Your task to perform on an android device: turn off priority inbox in the gmail app Image 0: 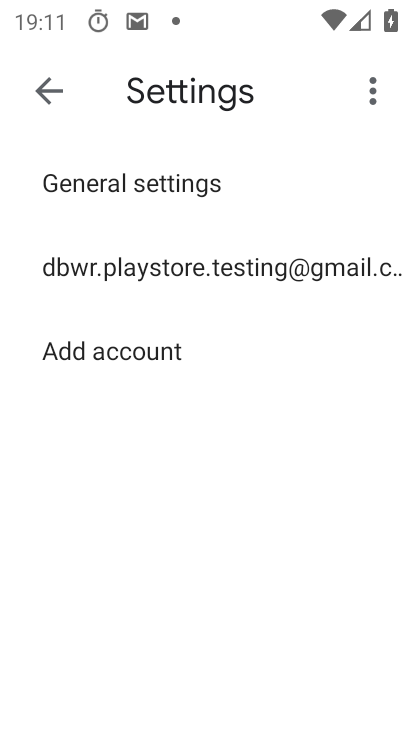
Step 0: press home button
Your task to perform on an android device: turn off priority inbox in the gmail app Image 1: 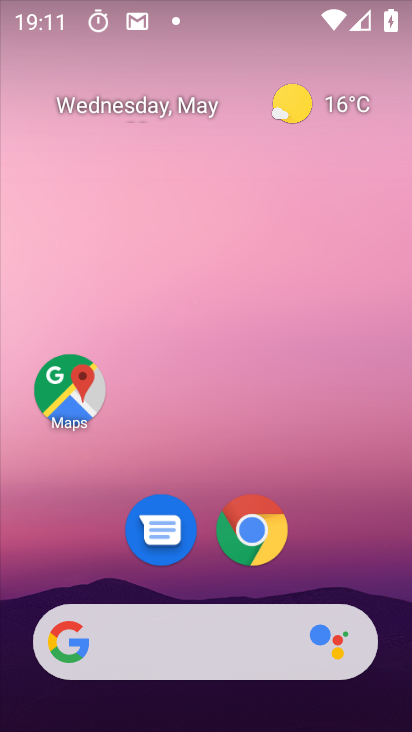
Step 1: drag from (201, 595) to (247, 234)
Your task to perform on an android device: turn off priority inbox in the gmail app Image 2: 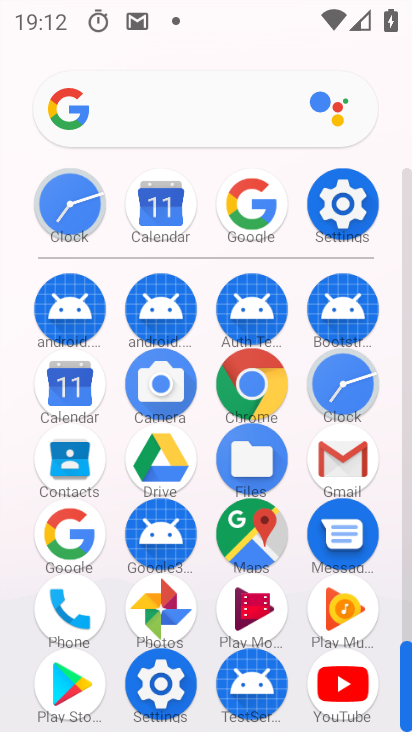
Step 2: click (355, 470)
Your task to perform on an android device: turn off priority inbox in the gmail app Image 3: 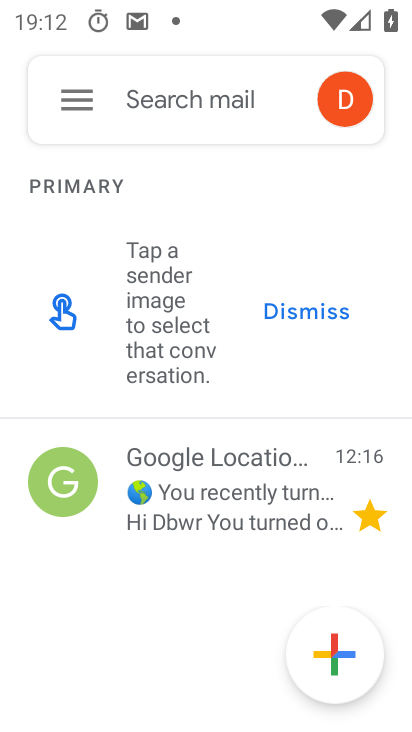
Step 3: click (84, 103)
Your task to perform on an android device: turn off priority inbox in the gmail app Image 4: 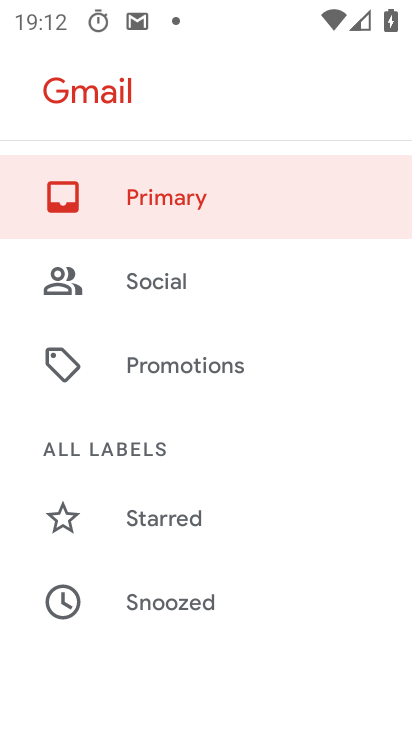
Step 4: drag from (156, 549) to (186, 259)
Your task to perform on an android device: turn off priority inbox in the gmail app Image 5: 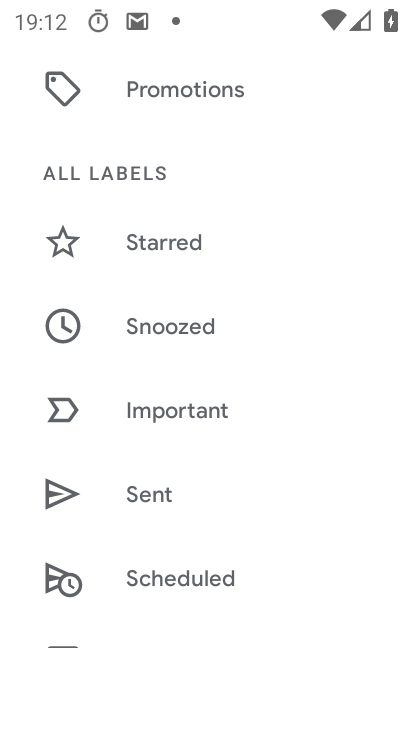
Step 5: drag from (162, 621) to (241, 320)
Your task to perform on an android device: turn off priority inbox in the gmail app Image 6: 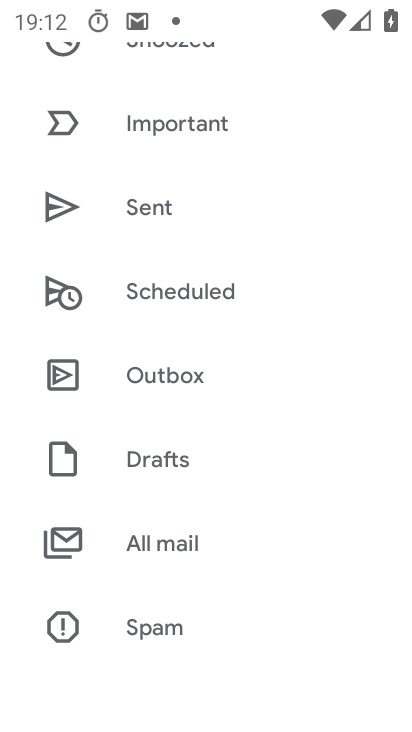
Step 6: drag from (134, 610) to (200, 304)
Your task to perform on an android device: turn off priority inbox in the gmail app Image 7: 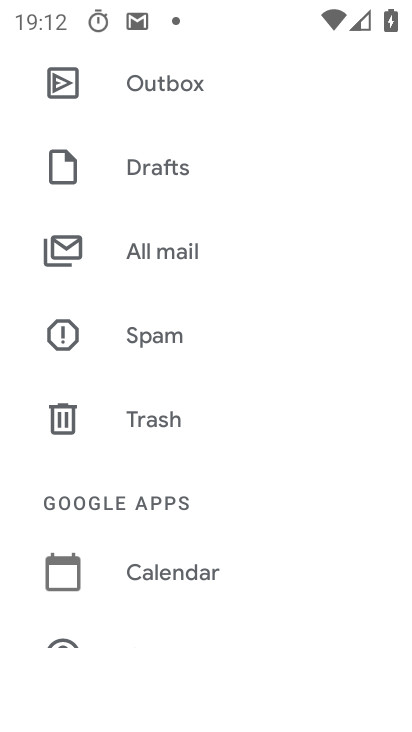
Step 7: drag from (141, 601) to (215, 234)
Your task to perform on an android device: turn off priority inbox in the gmail app Image 8: 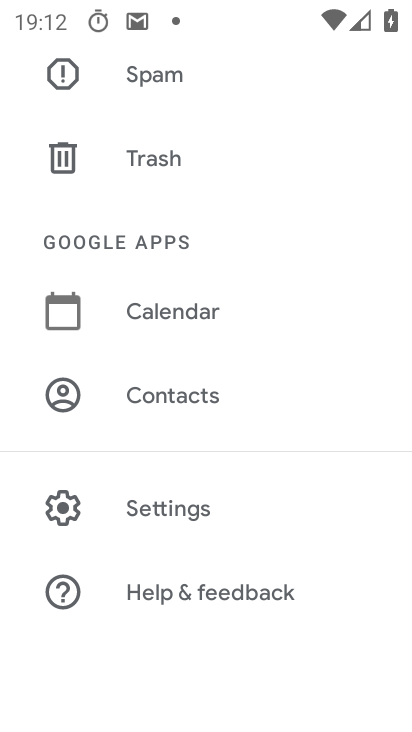
Step 8: click (179, 512)
Your task to perform on an android device: turn off priority inbox in the gmail app Image 9: 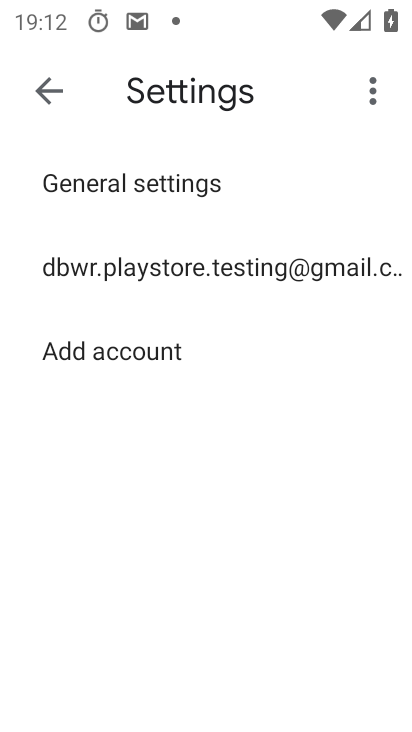
Step 9: click (171, 279)
Your task to perform on an android device: turn off priority inbox in the gmail app Image 10: 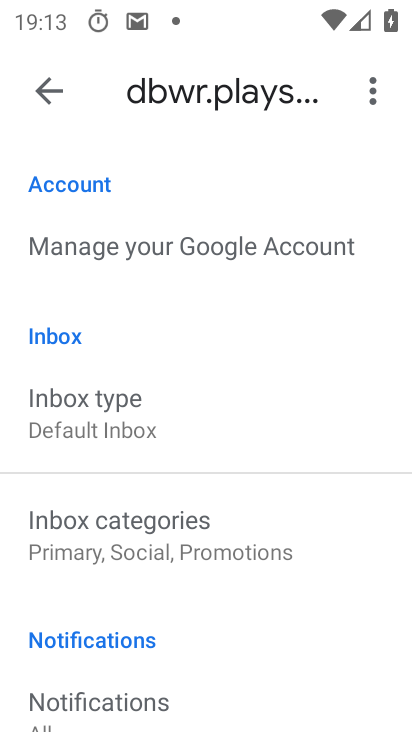
Step 10: click (111, 433)
Your task to perform on an android device: turn off priority inbox in the gmail app Image 11: 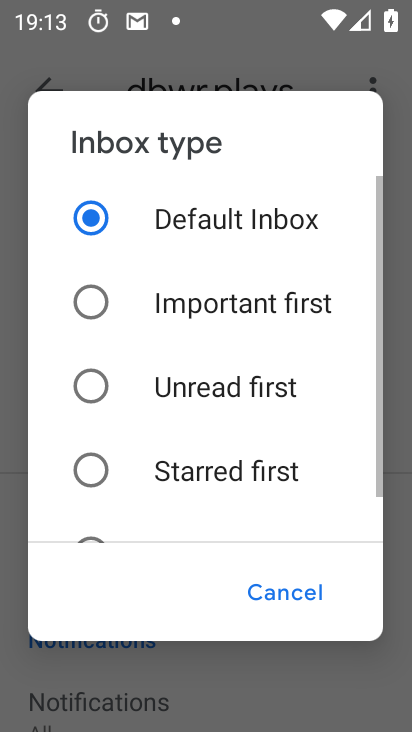
Step 11: drag from (188, 461) to (242, 218)
Your task to perform on an android device: turn off priority inbox in the gmail app Image 12: 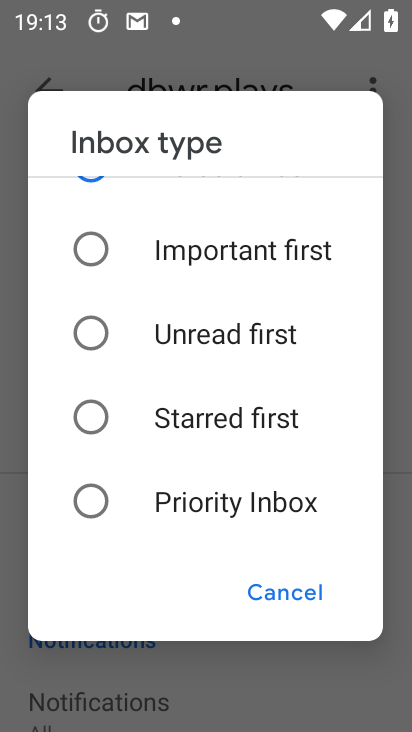
Step 12: click (142, 517)
Your task to perform on an android device: turn off priority inbox in the gmail app Image 13: 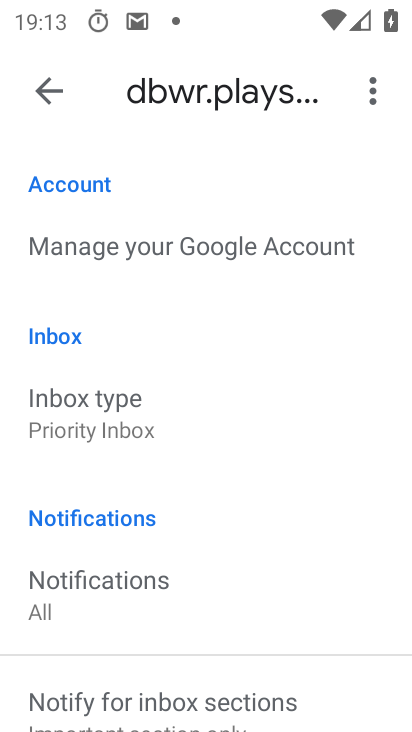
Step 13: task complete